Your task to perform on an android device: Go to display settings Image 0: 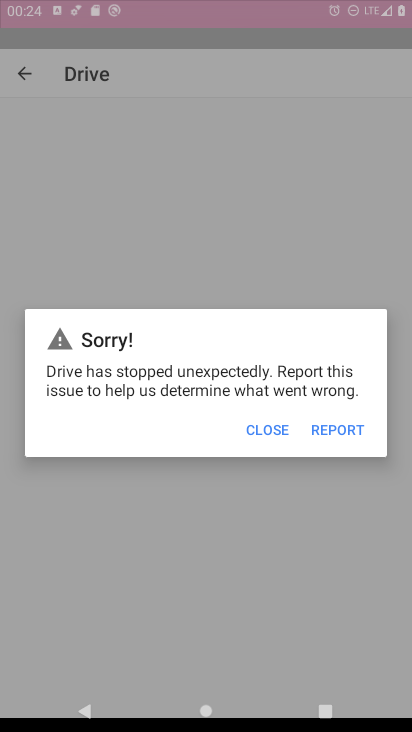
Step 0: press home button
Your task to perform on an android device: Go to display settings Image 1: 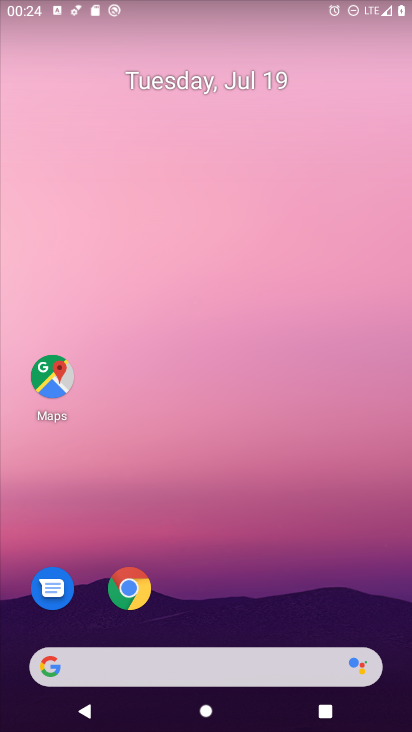
Step 1: drag from (381, 621) to (337, 69)
Your task to perform on an android device: Go to display settings Image 2: 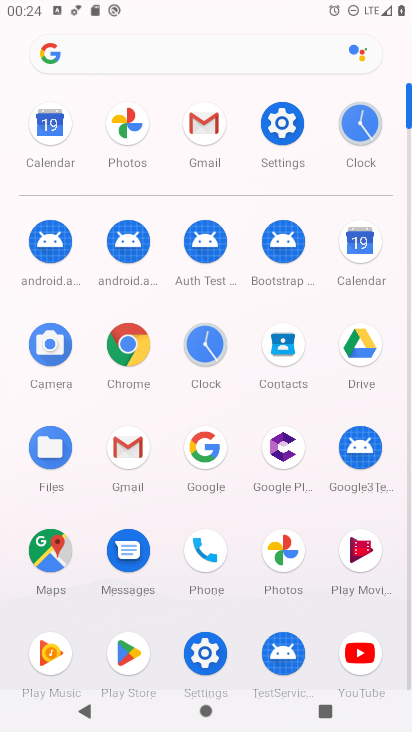
Step 2: click (205, 654)
Your task to perform on an android device: Go to display settings Image 3: 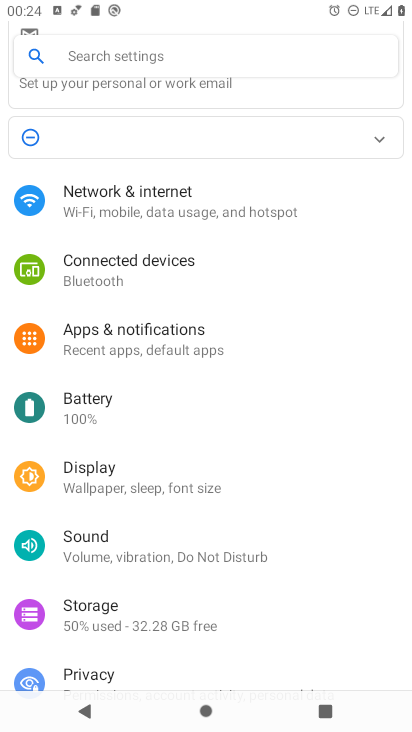
Step 3: drag from (329, 656) to (316, 490)
Your task to perform on an android device: Go to display settings Image 4: 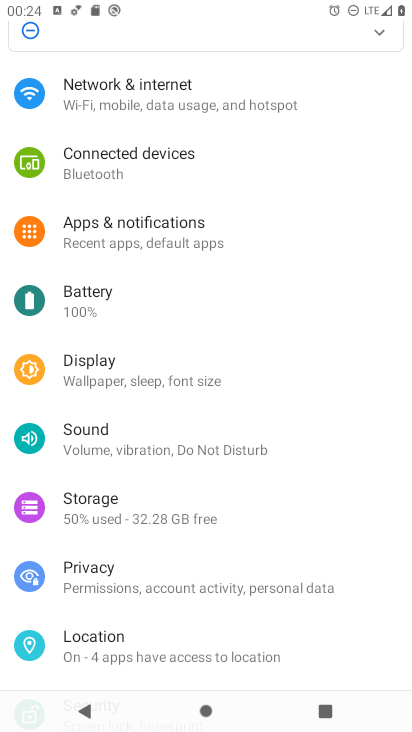
Step 4: click (80, 361)
Your task to perform on an android device: Go to display settings Image 5: 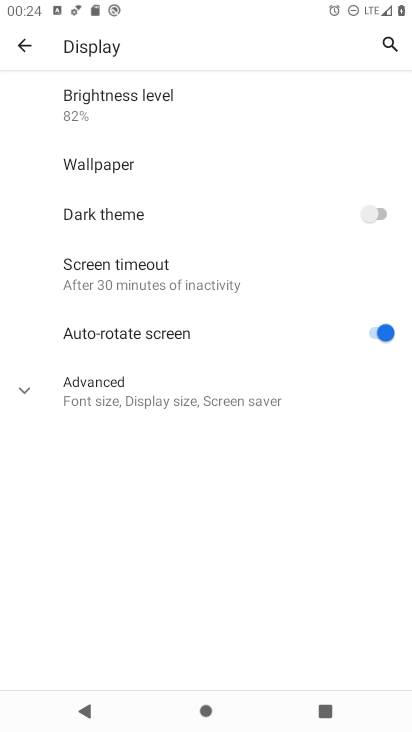
Step 5: click (20, 386)
Your task to perform on an android device: Go to display settings Image 6: 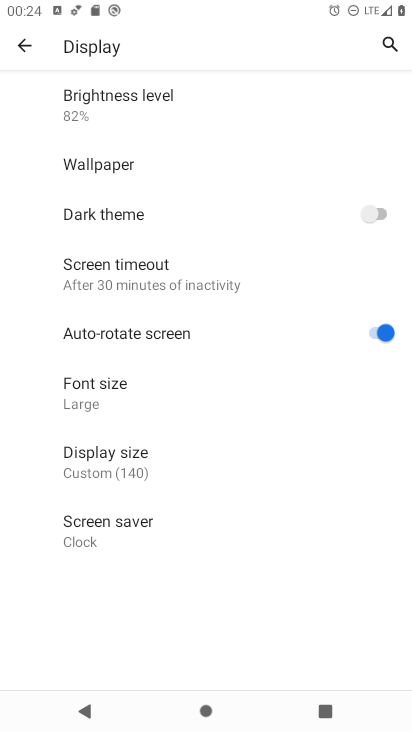
Step 6: task complete